Your task to perform on an android device: Open Maps and search for coffee Image 0: 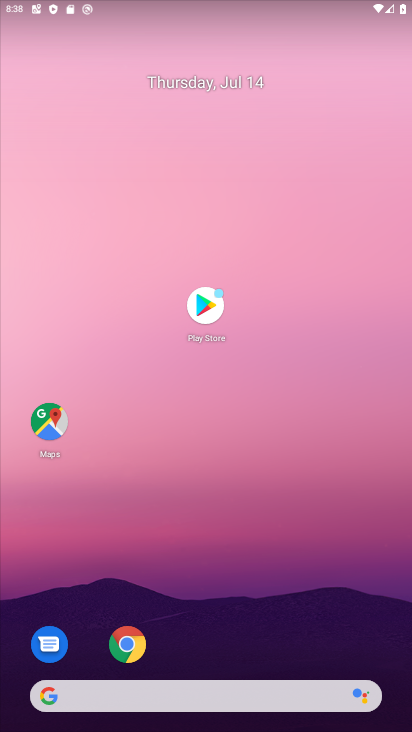
Step 0: click (408, 684)
Your task to perform on an android device: Open Maps and search for coffee Image 1: 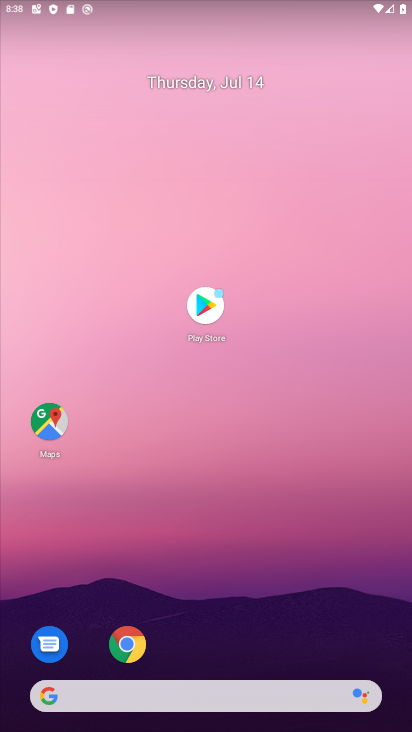
Step 1: drag from (183, 603) to (197, 85)
Your task to perform on an android device: Open Maps and search for coffee Image 2: 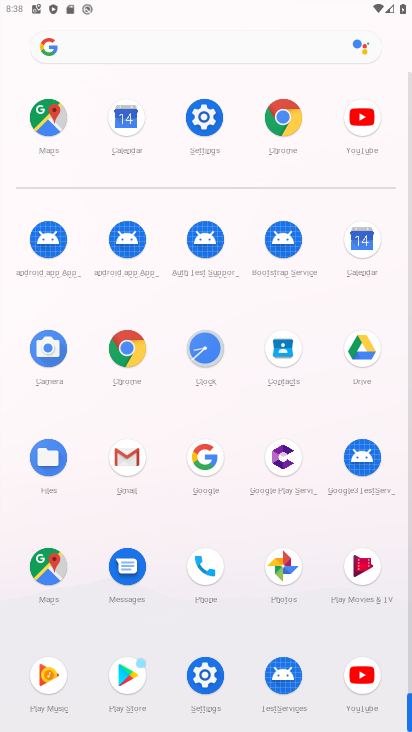
Step 2: click (49, 563)
Your task to perform on an android device: Open Maps and search for coffee Image 3: 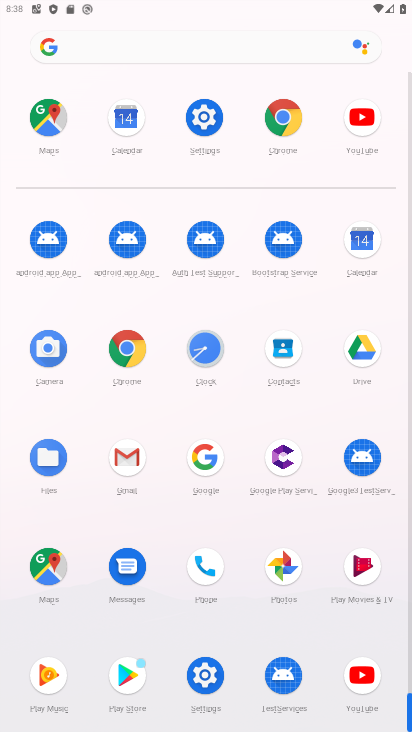
Step 3: click (49, 563)
Your task to perform on an android device: Open Maps and search for coffee Image 4: 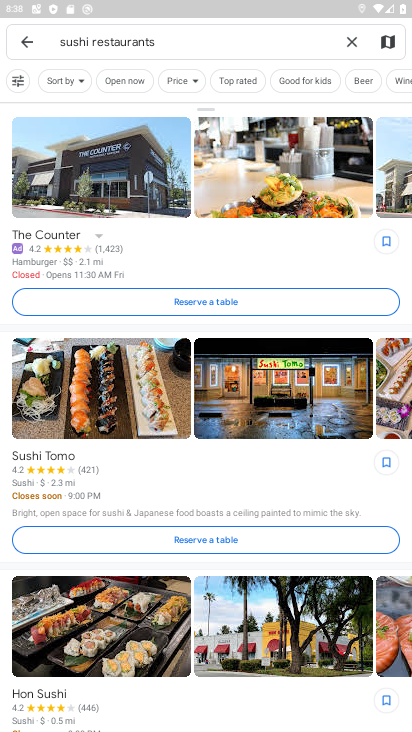
Step 4: click (347, 37)
Your task to perform on an android device: Open Maps and search for coffee Image 5: 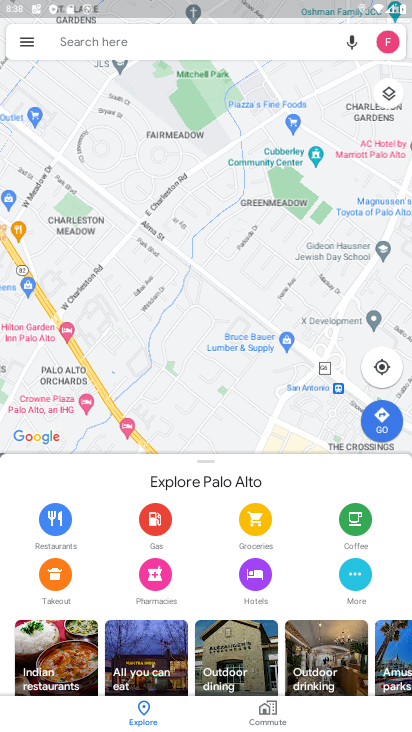
Step 5: click (206, 395)
Your task to perform on an android device: Open Maps and search for coffee Image 6: 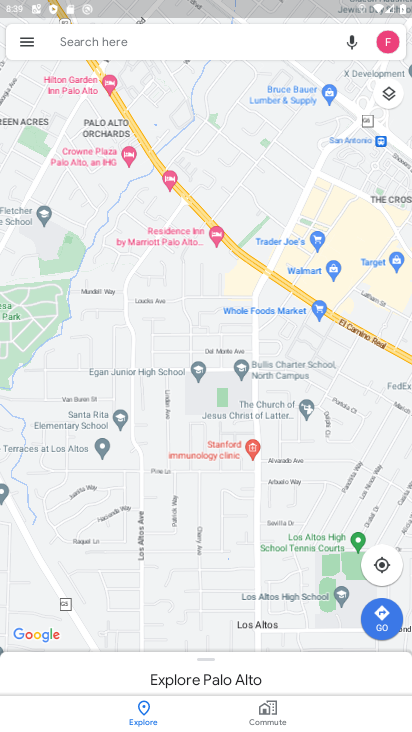
Step 6: click (168, 45)
Your task to perform on an android device: Open Maps and search for coffee Image 7: 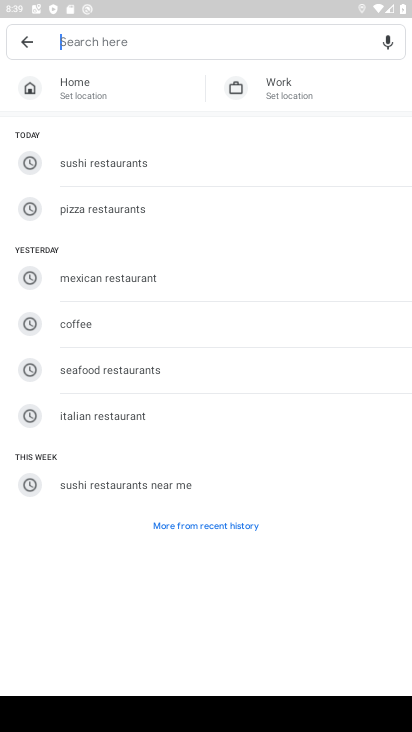
Step 7: drag from (167, 436) to (175, 269)
Your task to perform on an android device: Open Maps and search for coffee Image 8: 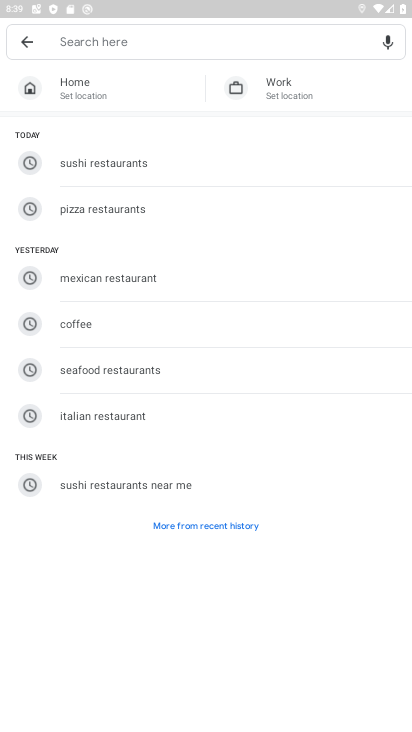
Step 8: click (100, 317)
Your task to perform on an android device: Open Maps and search for coffee Image 9: 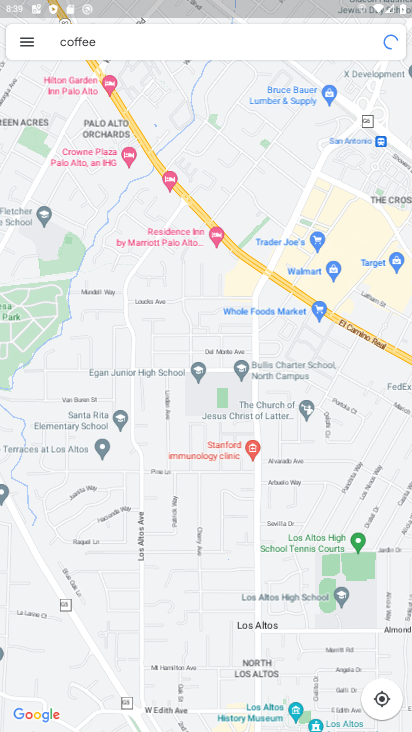
Step 9: task complete